Your task to perform on an android device: turn off priority inbox in the gmail app Image 0: 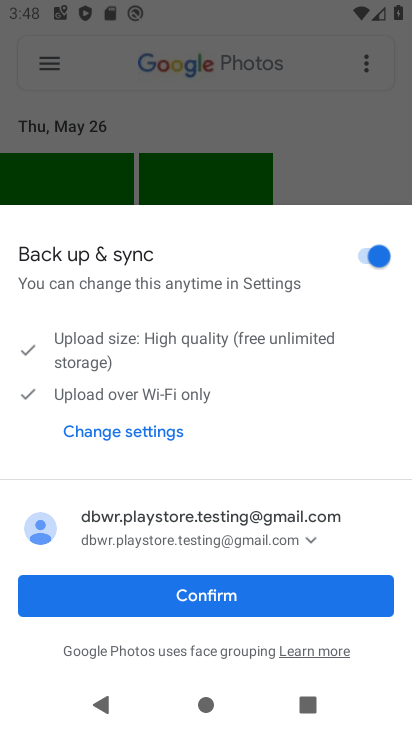
Step 0: press home button
Your task to perform on an android device: turn off priority inbox in the gmail app Image 1: 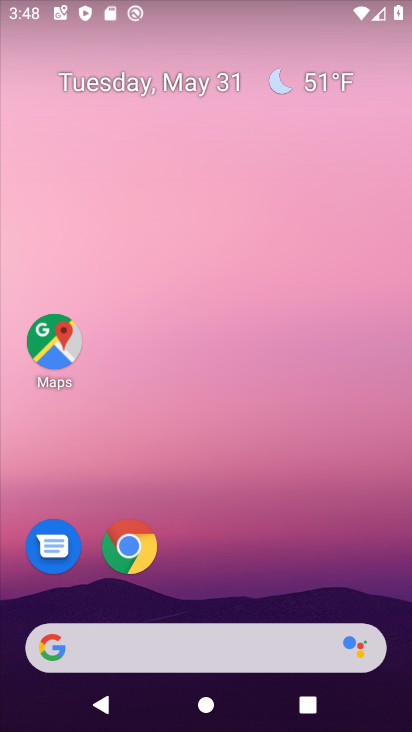
Step 1: drag from (241, 588) to (157, 225)
Your task to perform on an android device: turn off priority inbox in the gmail app Image 2: 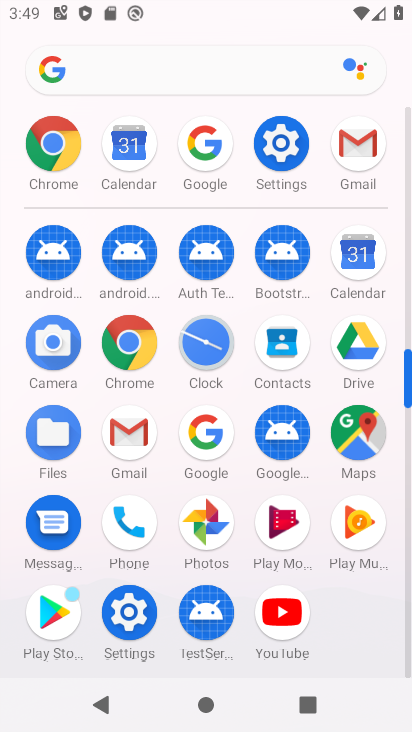
Step 2: click (136, 438)
Your task to perform on an android device: turn off priority inbox in the gmail app Image 3: 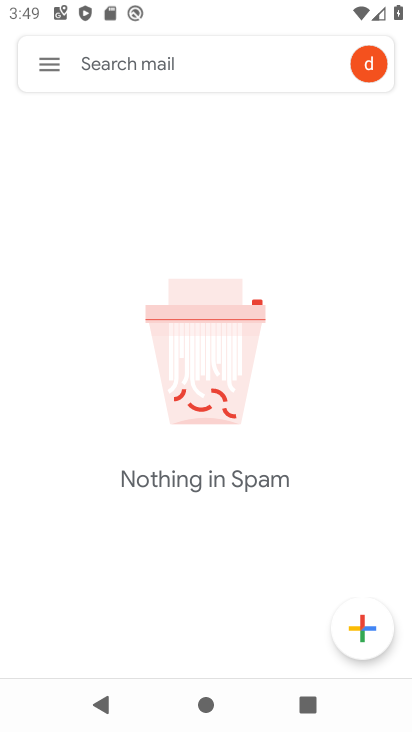
Step 3: click (52, 70)
Your task to perform on an android device: turn off priority inbox in the gmail app Image 4: 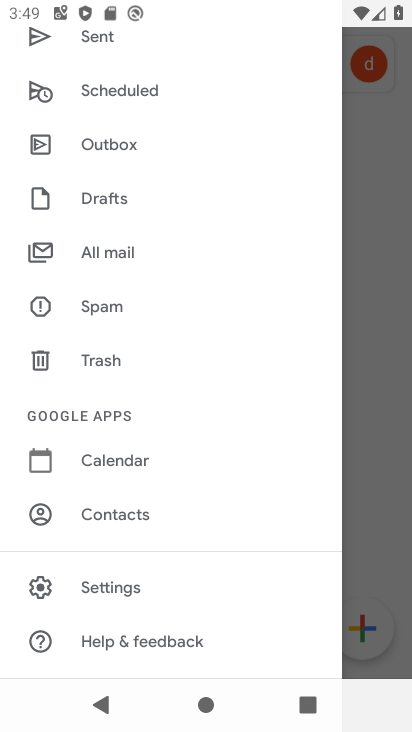
Step 4: click (149, 579)
Your task to perform on an android device: turn off priority inbox in the gmail app Image 5: 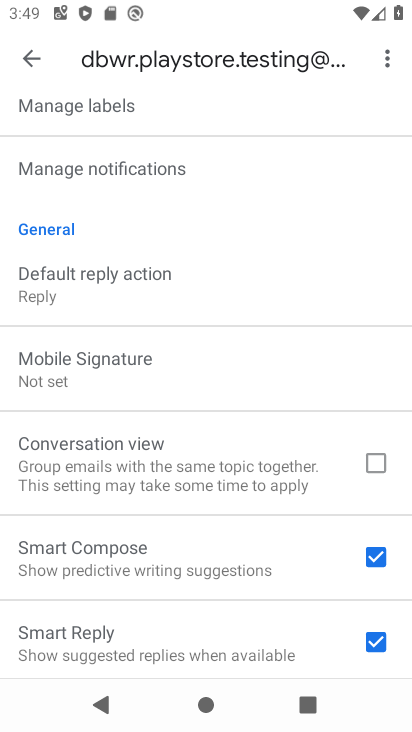
Step 5: drag from (146, 296) to (239, 498)
Your task to perform on an android device: turn off priority inbox in the gmail app Image 6: 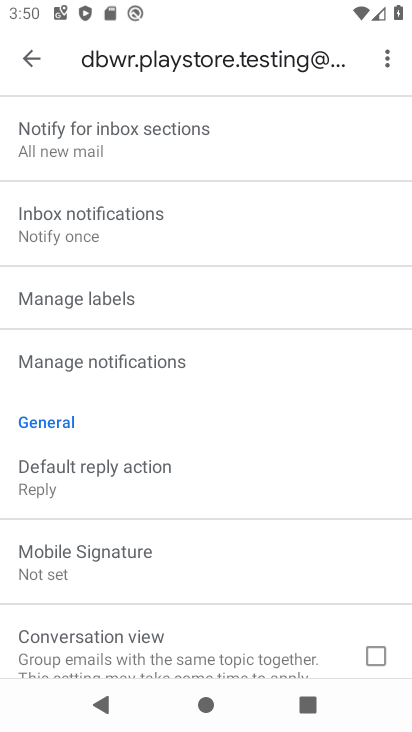
Step 6: drag from (63, 268) to (164, 546)
Your task to perform on an android device: turn off priority inbox in the gmail app Image 7: 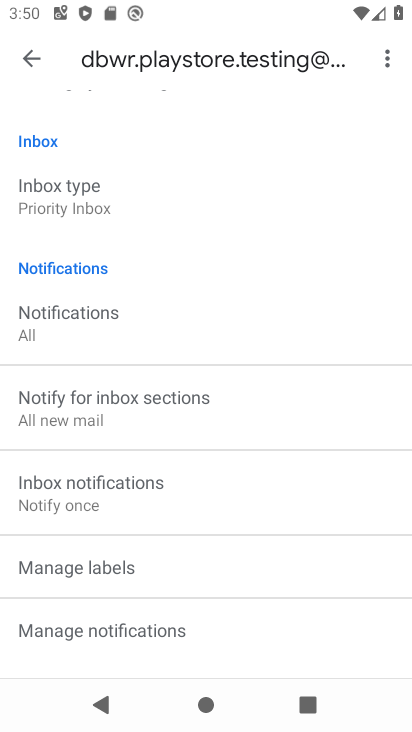
Step 7: click (54, 203)
Your task to perform on an android device: turn off priority inbox in the gmail app Image 8: 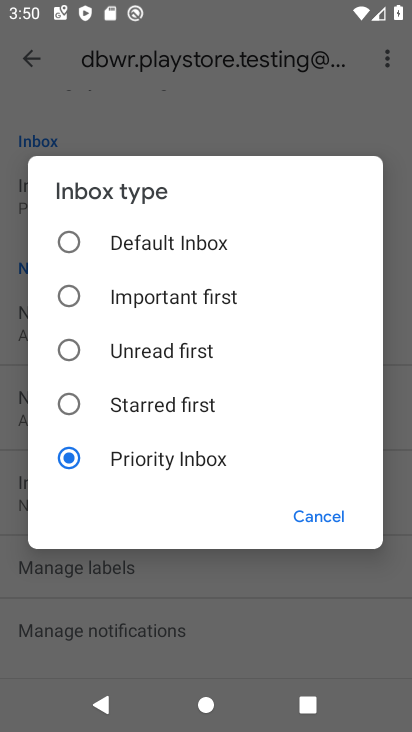
Step 8: click (72, 249)
Your task to perform on an android device: turn off priority inbox in the gmail app Image 9: 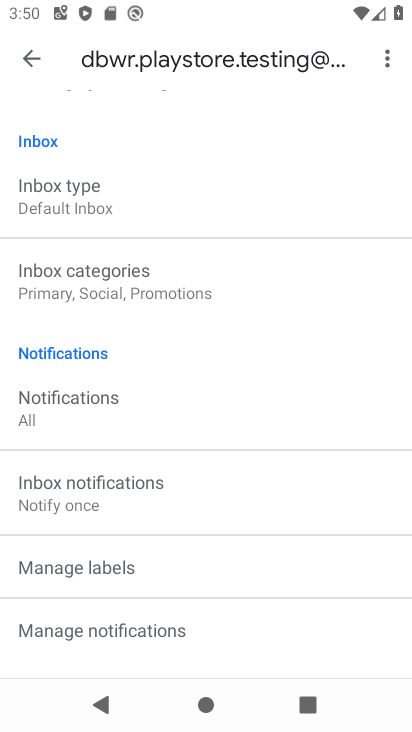
Step 9: task complete